Your task to perform on an android device: turn on showing notifications on the lock screen Image 0: 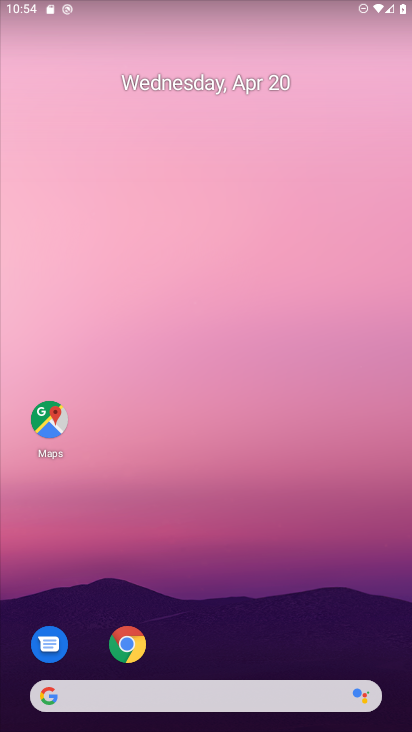
Step 0: drag from (331, 624) to (294, 64)
Your task to perform on an android device: turn on showing notifications on the lock screen Image 1: 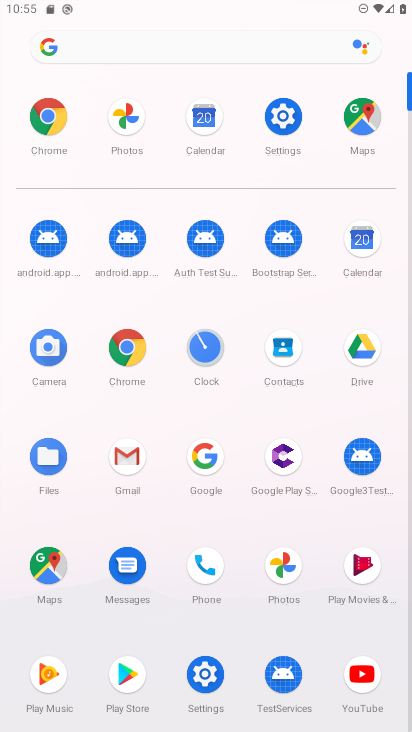
Step 1: click (212, 676)
Your task to perform on an android device: turn on showing notifications on the lock screen Image 2: 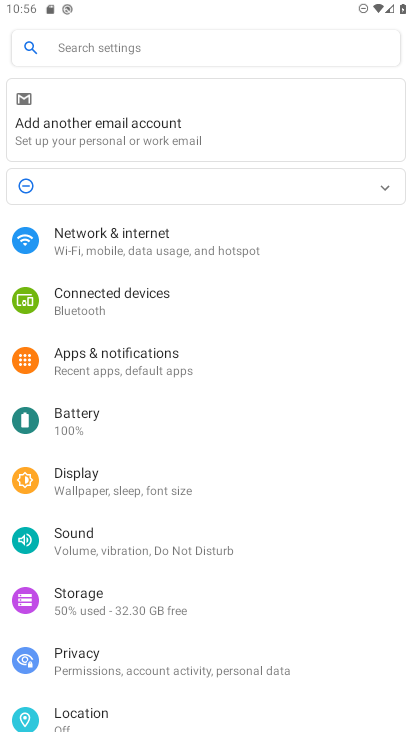
Step 2: click (166, 356)
Your task to perform on an android device: turn on showing notifications on the lock screen Image 3: 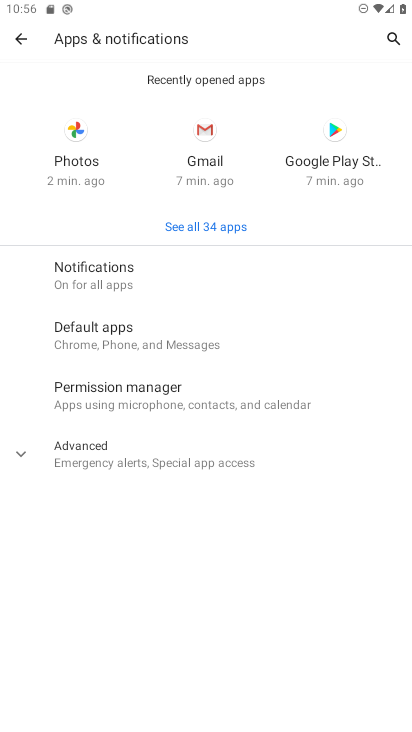
Step 3: click (152, 281)
Your task to perform on an android device: turn on showing notifications on the lock screen Image 4: 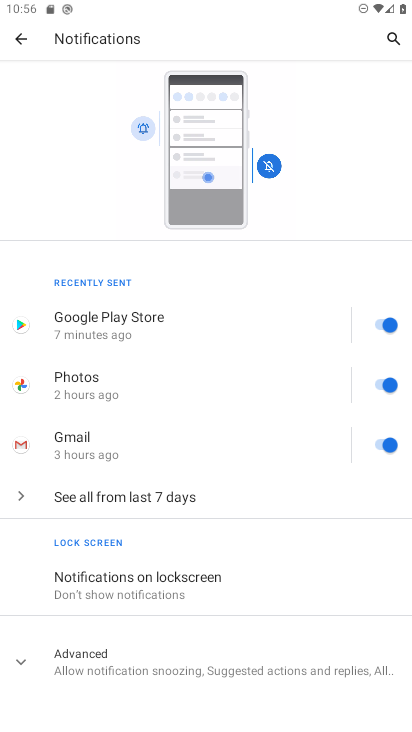
Step 4: click (110, 581)
Your task to perform on an android device: turn on showing notifications on the lock screen Image 5: 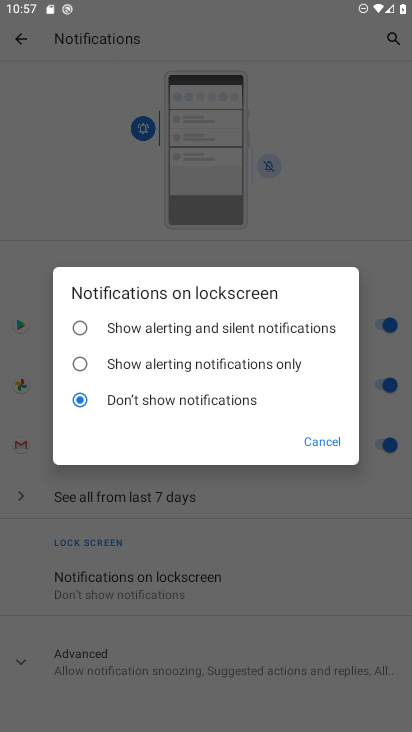
Step 5: click (212, 333)
Your task to perform on an android device: turn on showing notifications on the lock screen Image 6: 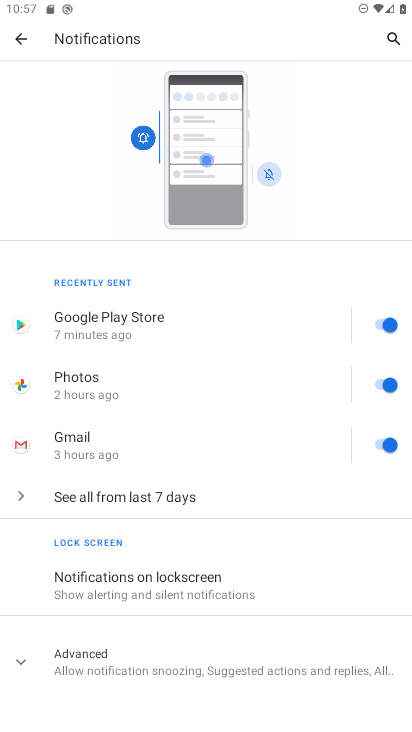
Step 6: task complete